Your task to perform on an android device: remove spam from my inbox in the gmail app Image 0: 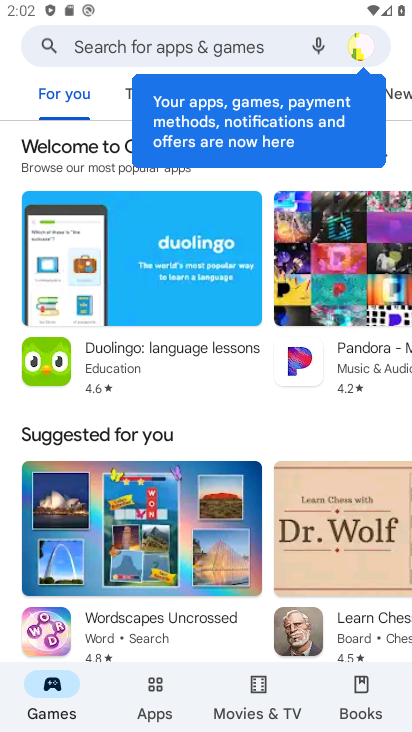
Step 0: press home button
Your task to perform on an android device: remove spam from my inbox in the gmail app Image 1: 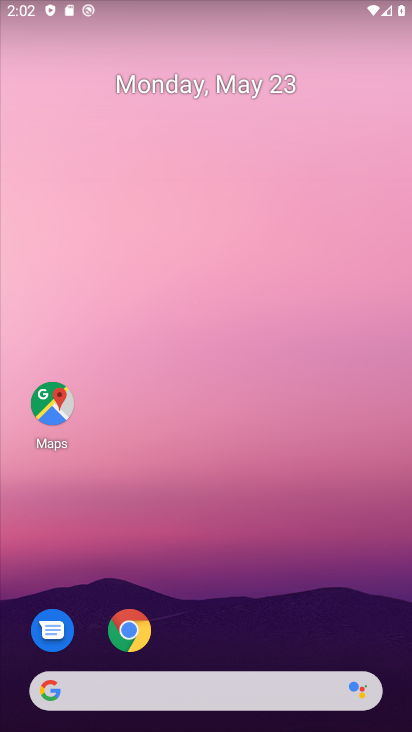
Step 1: drag from (299, 513) to (252, 117)
Your task to perform on an android device: remove spam from my inbox in the gmail app Image 2: 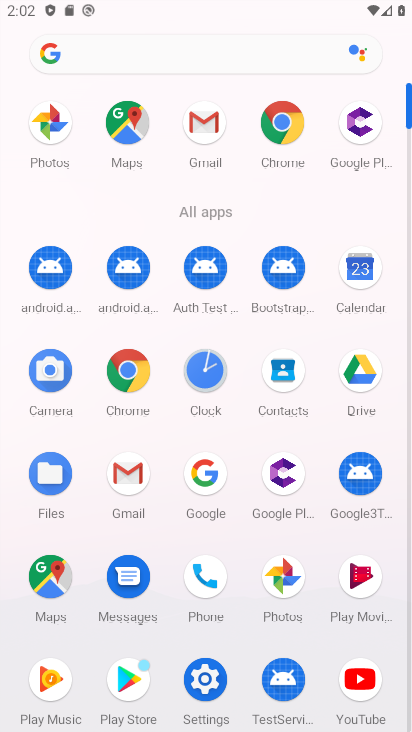
Step 2: click (209, 110)
Your task to perform on an android device: remove spam from my inbox in the gmail app Image 3: 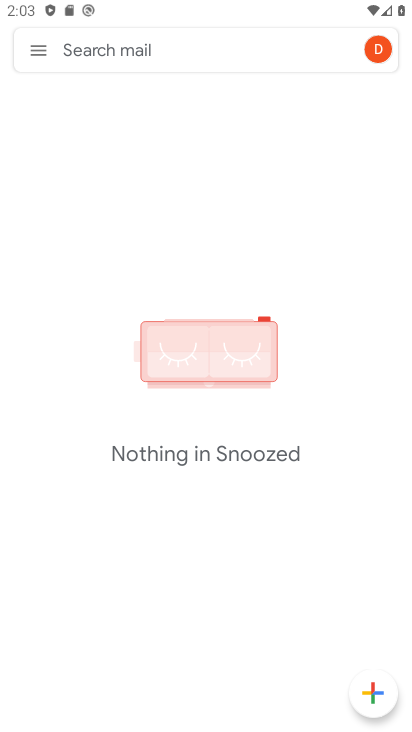
Step 3: click (35, 57)
Your task to perform on an android device: remove spam from my inbox in the gmail app Image 4: 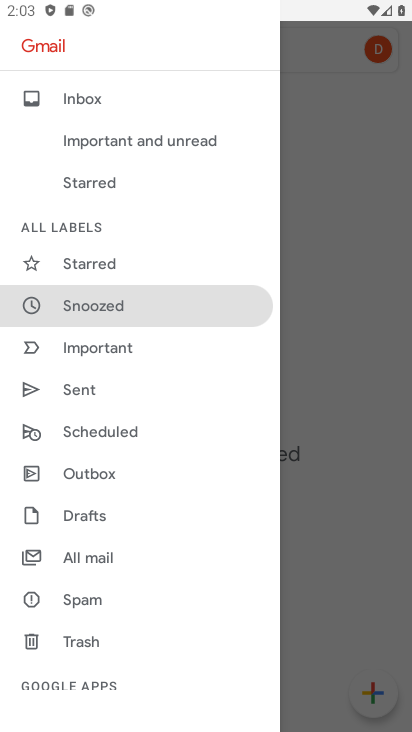
Step 4: click (98, 613)
Your task to perform on an android device: remove spam from my inbox in the gmail app Image 5: 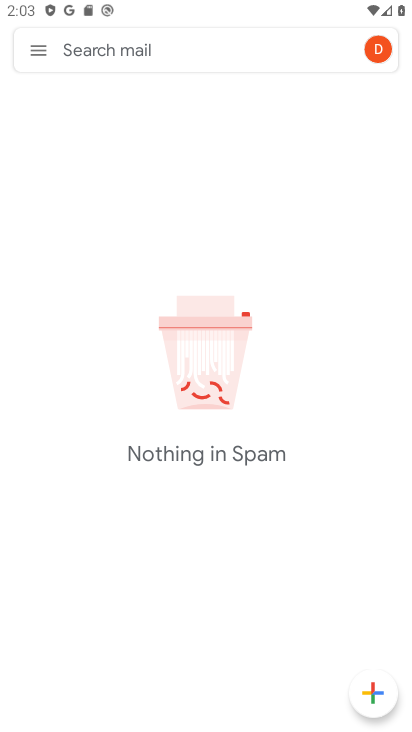
Step 5: task complete